Your task to perform on an android device: Go to Google maps Image 0: 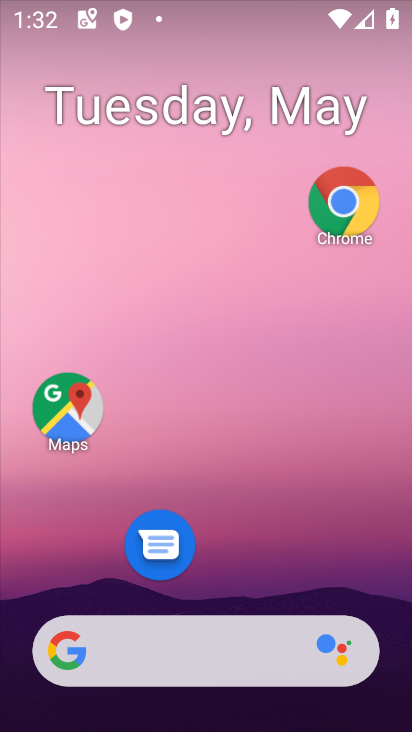
Step 0: click (336, 206)
Your task to perform on an android device: Go to Google maps Image 1: 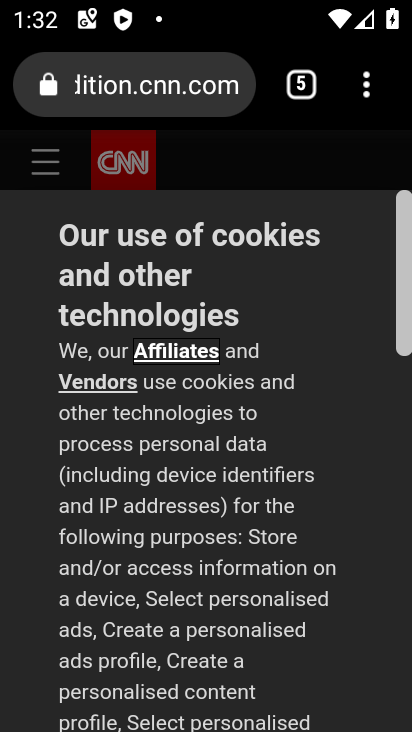
Step 1: press home button
Your task to perform on an android device: Go to Google maps Image 2: 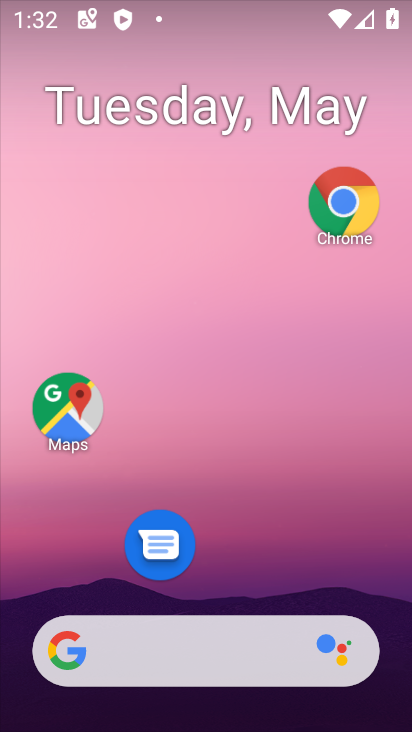
Step 2: click (92, 424)
Your task to perform on an android device: Go to Google maps Image 3: 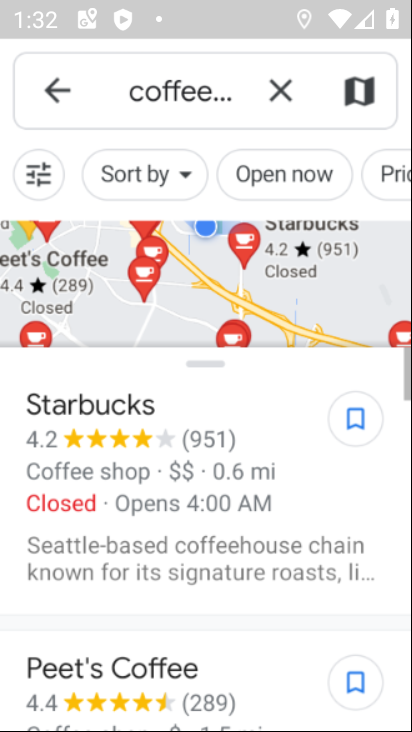
Step 3: task complete